Your task to perform on an android device: Open privacy settings Image 0: 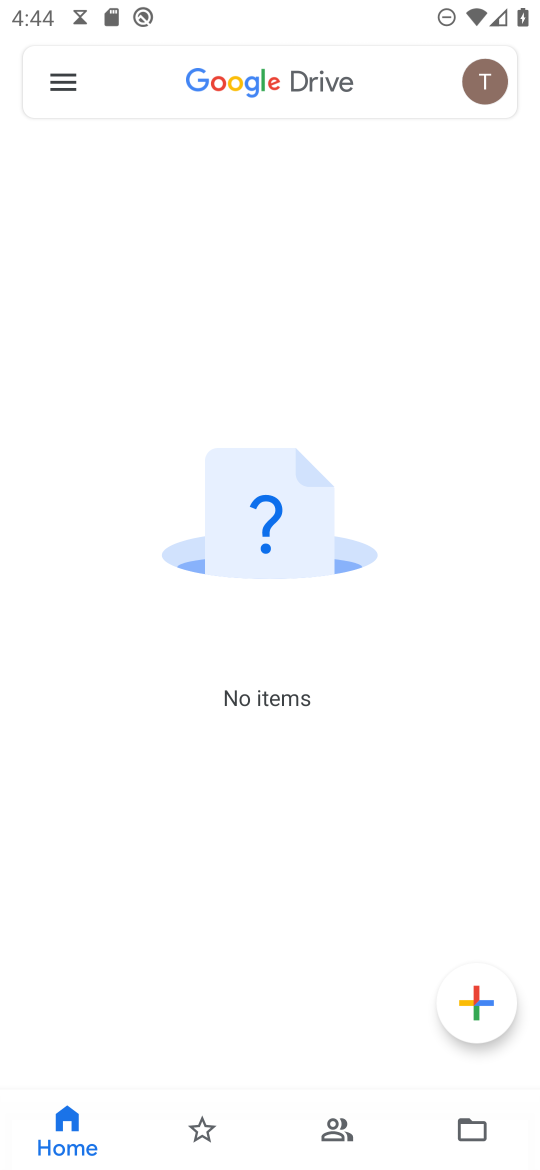
Step 0: press home button
Your task to perform on an android device: Open privacy settings Image 1: 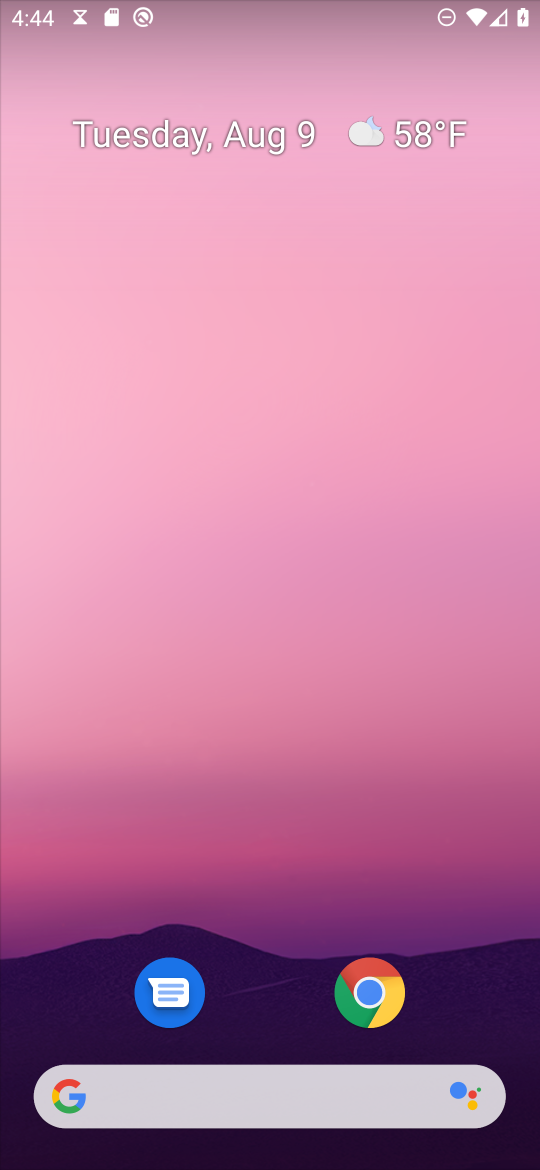
Step 1: drag from (370, 1094) to (314, 99)
Your task to perform on an android device: Open privacy settings Image 2: 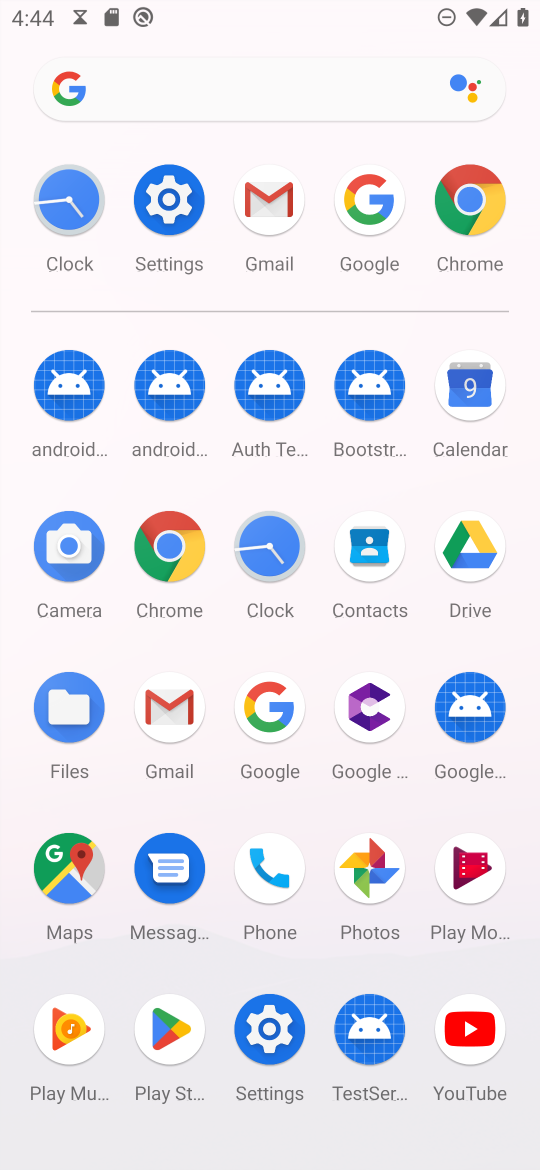
Step 2: click (177, 181)
Your task to perform on an android device: Open privacy settings Image 3: 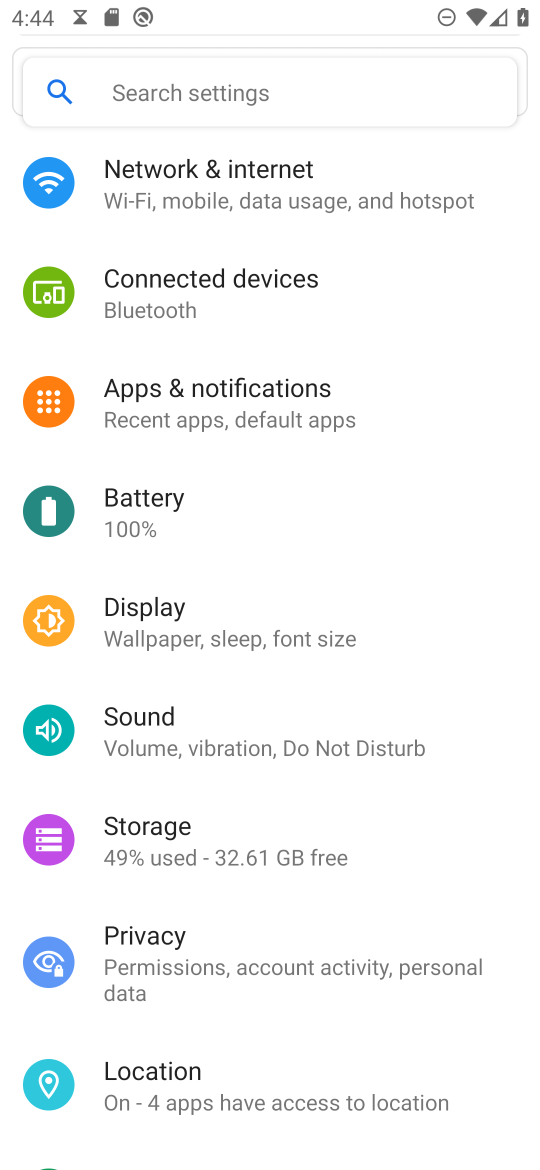
Step 3: click (196, 800)
Your task to perform on an android device: Open privacy settings Image 4: 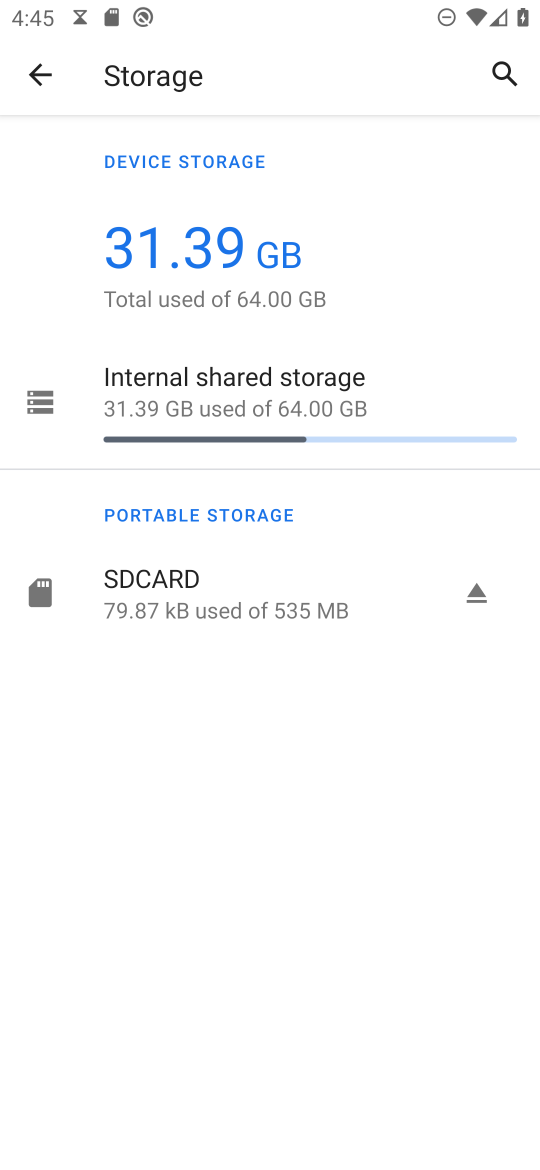
Step 4: press back button
Your task to perform on an android device: Open privacy settings Image 5: 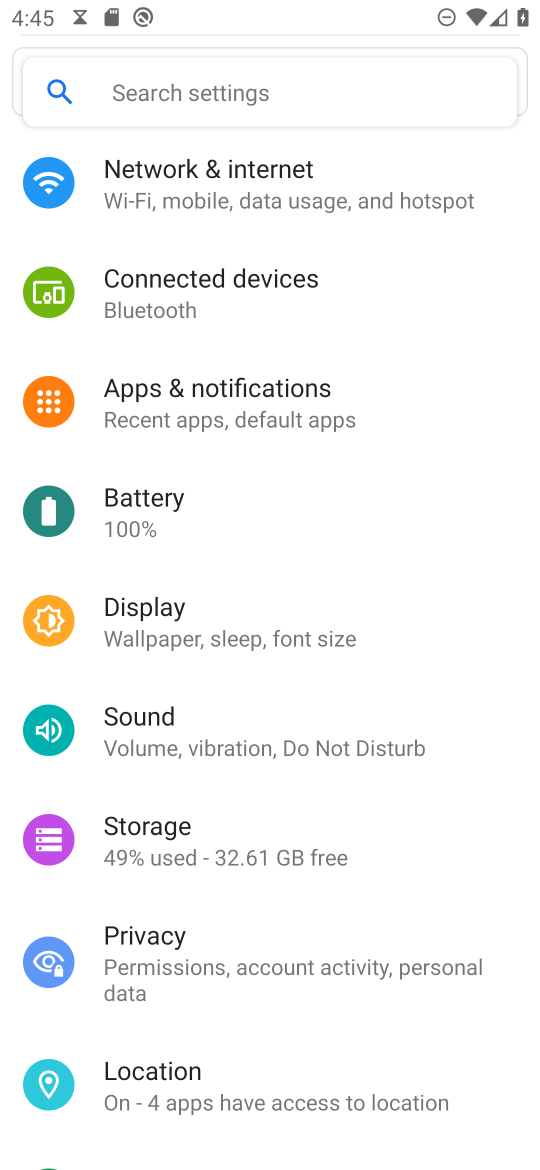
Step 5: click (189, 969)
Your task to perform on an android device: Open privacy settings Image 6: 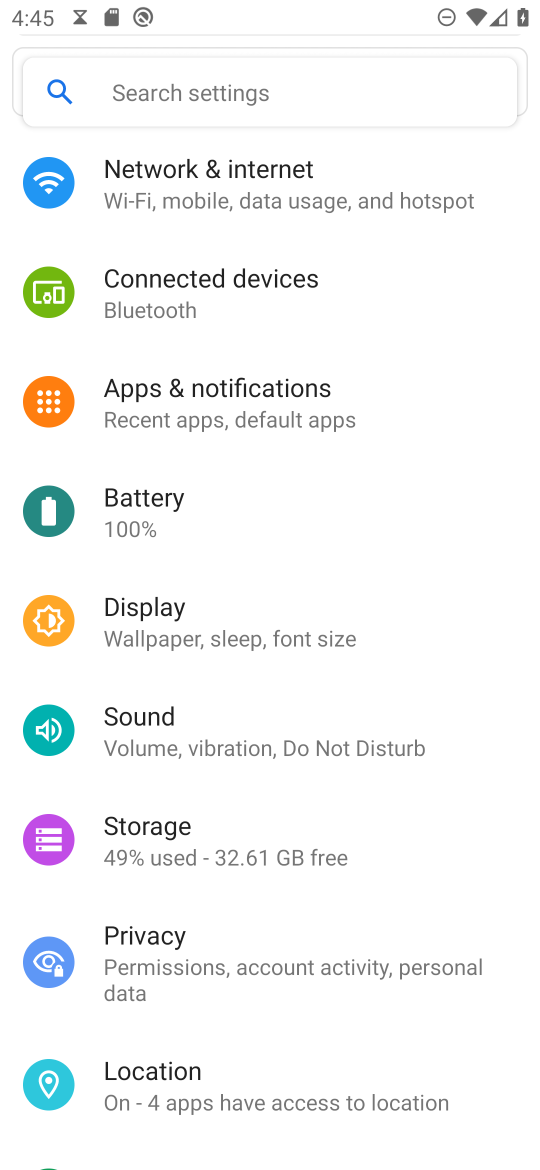
Step 6: task complete